Your task to perform on an android device: turn on data saver in the chrome app Image 0: 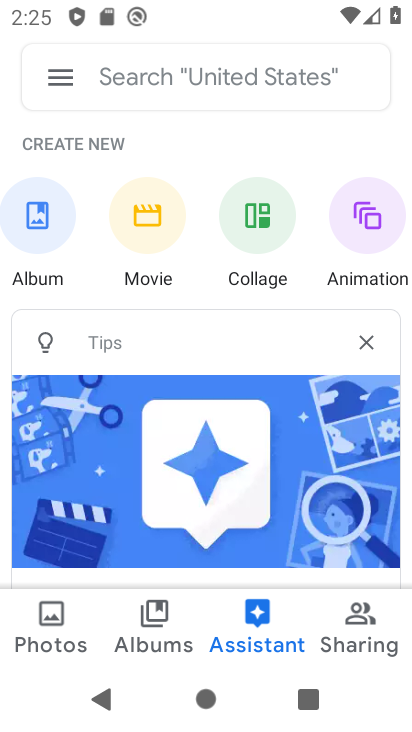
Step 0: press home button
Your task to perform on an android device: turn on data saver in the chrome app Image 1: 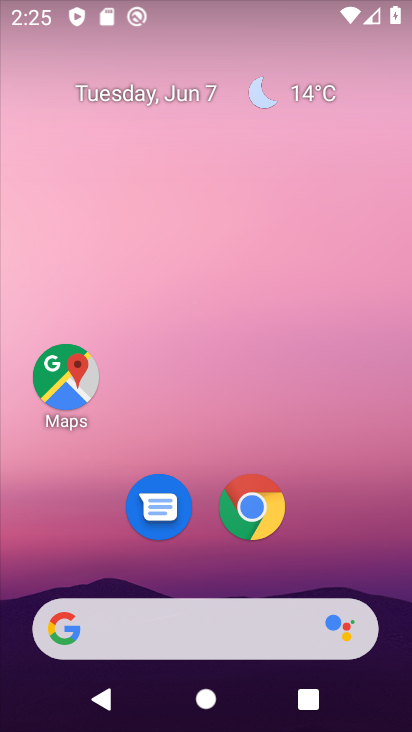
Step 1: click (253, 502)
Your task to perform on an android device: turn on data saver in the chrome app Image 2: 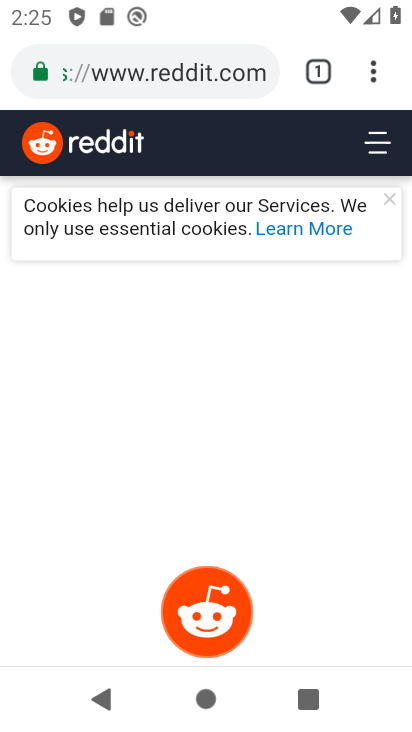
Step 2: drag from (374, 68) to (224, 513)
Your task to perform on an android device: turn on data saver in the chrome app Image 3: 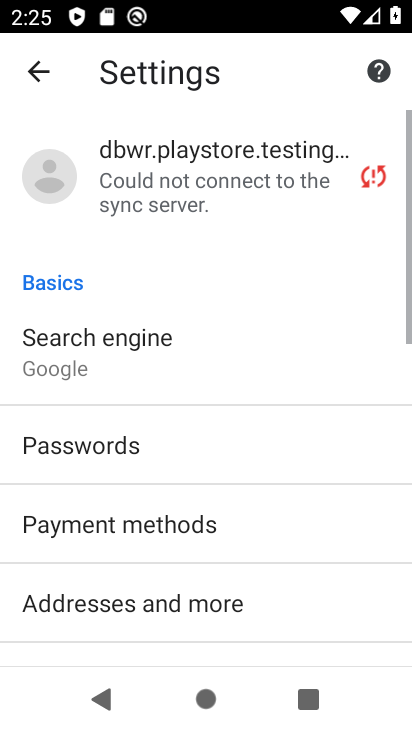
Step 3: drag from (235, 441) to (282, 9)
Your task to perform on an android device: turn on data saver in the chrome app Image 4: 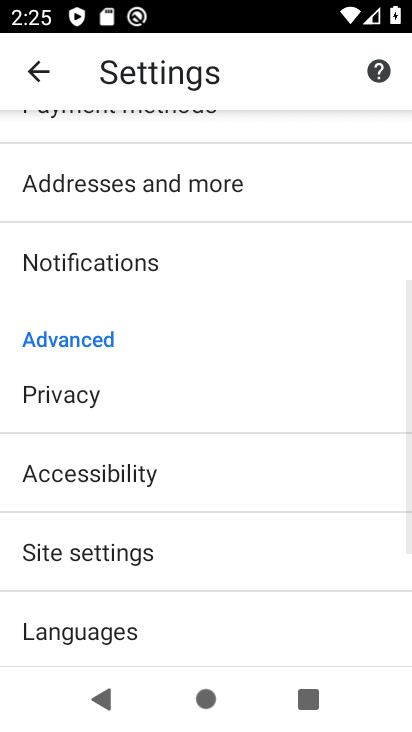
Step 4: drag from (188, 458) to (250, 147)
Your task to perform on an android device: turn on data saver in the chrome app Image 5: 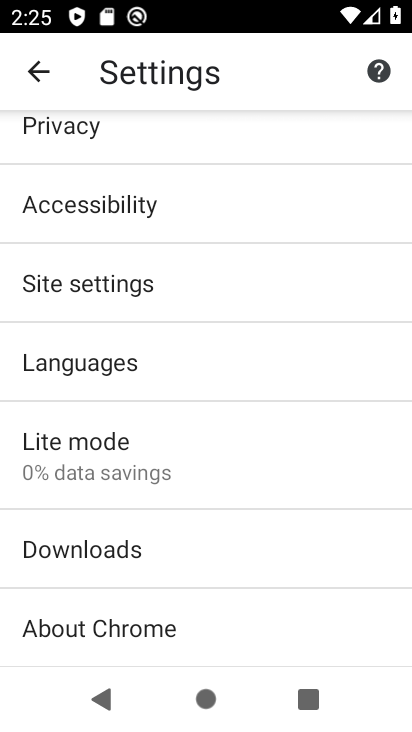
Step 5: click (125, 456)
Your task to perform on an android device: turn on data saver in the chrome app Image 6: 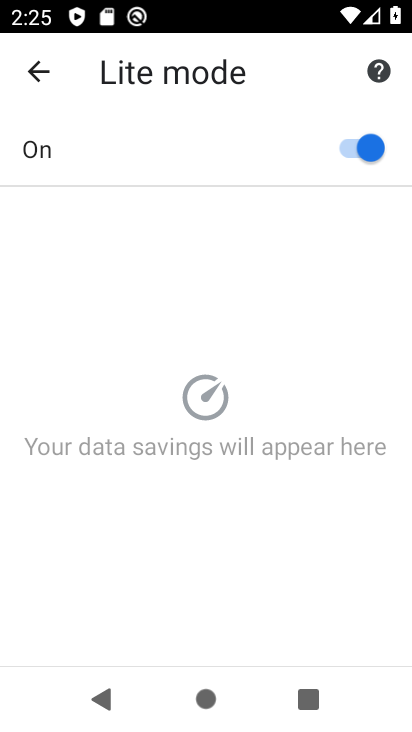
Step 6: task complete